Your task to perform on an android device: turn pop-ups off in chrome Image 0: 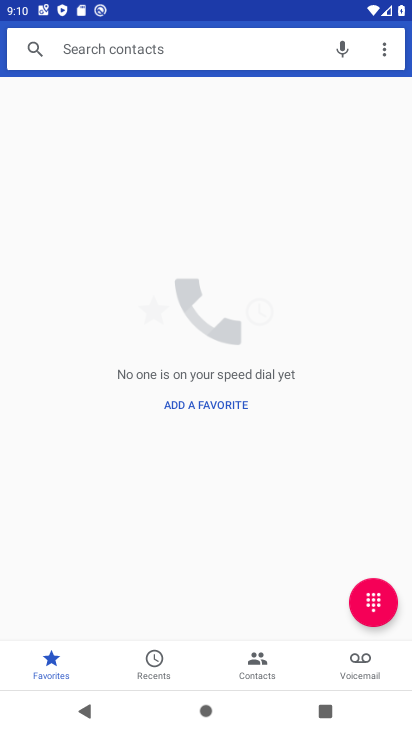
Step 0: press home button
Your task to perform on an android device: turn pop-ups off in chrome Image 1: 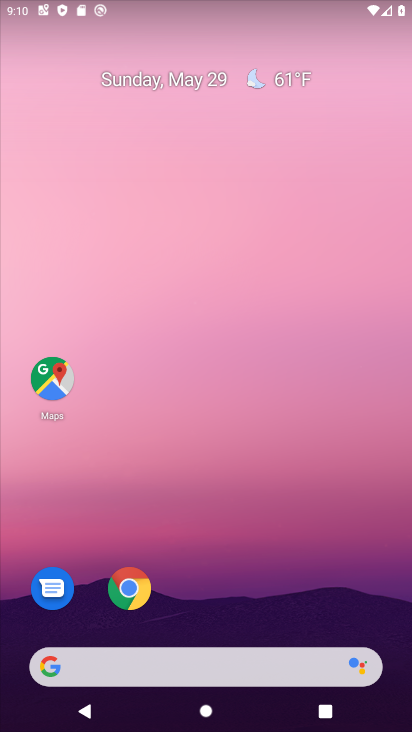
Step 1: drag from (315, 485) to (330, 70)
Your task to perform on an android device: turn pop-ups off in chrome Image 2: 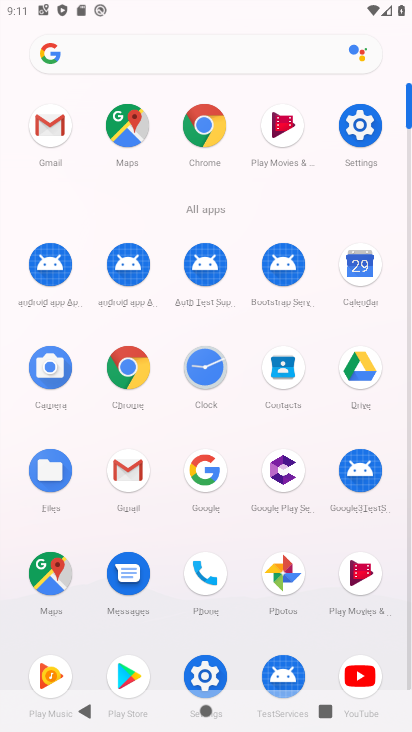
Step 2: click (204, 126)
Your task to perform on an android device: turn pop-ups off in chrome Image 3: 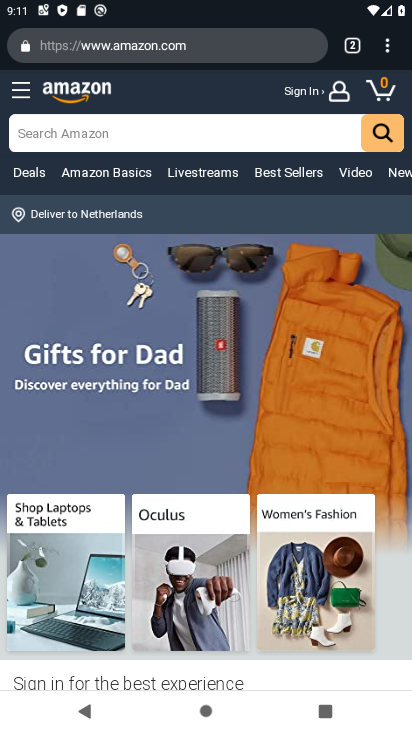
Step 3: drag from (384, 43) to (236, 534)
Your task to perform on an android device: turn pop-ups off in chrome Image 4: 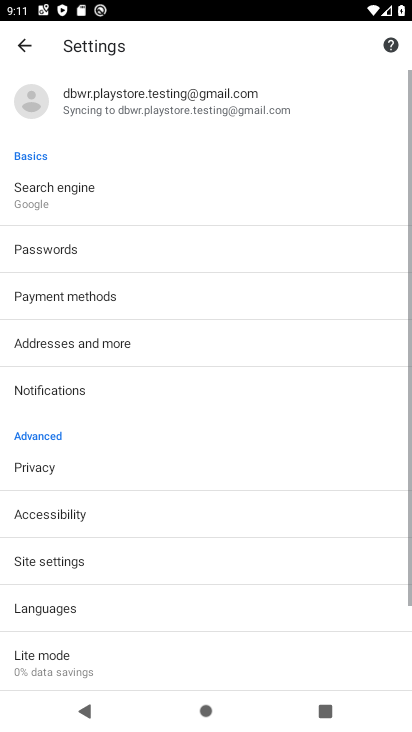
Step 4: drag from (271, 428) to (338, 98)
Your task to perform on an android device: turn pop-ups off in chrome Image 5: 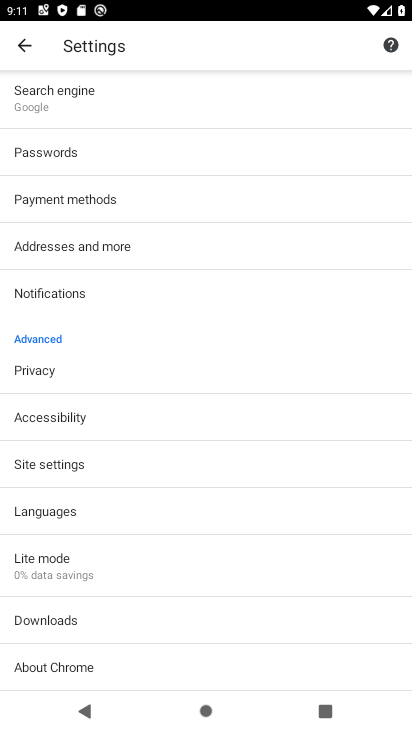
Step 5: click (118, 456)
Your task to perform on an android device: turn pop-ups off in chrome Image 6: 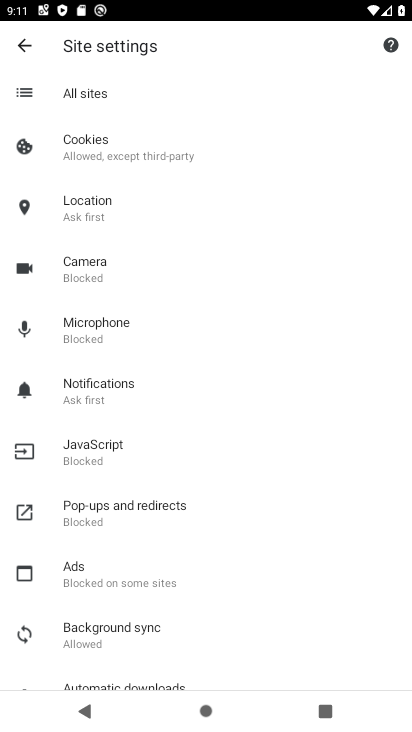
Step 6: click (196, 511)
Your task to perform on an android device: turn pop-ups off in chrome Image 7: 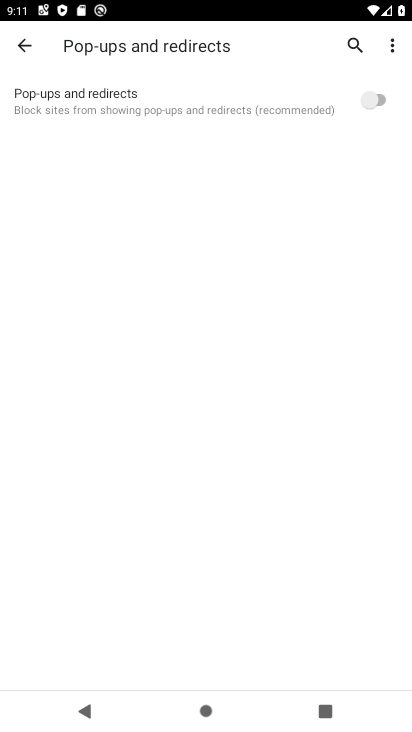
Step 7: task complete